Your task to perform on an android device: Search for Italian restaurants on Maps Image 0: 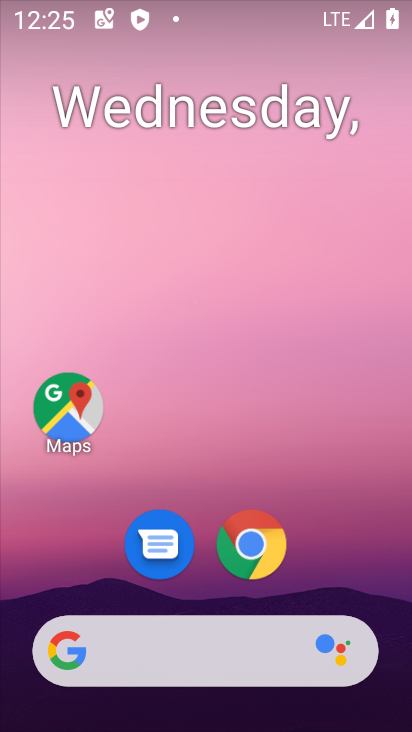
Step 0: drag from (396, 639) to (273, 50)
Your task to perform on an android device: Search for Italian restaurants on Maps Image 1: 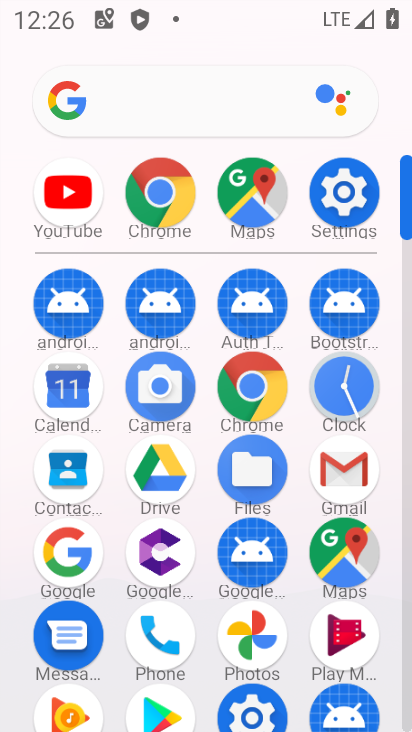
Step 1: click (343, 554)
Your task to perform on an android device: Search for Italian restaurants on Maps Image 2: 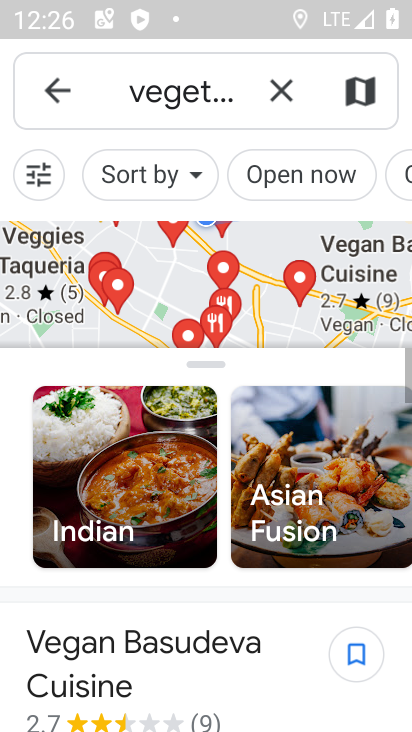
Step 2: click (278, 80)
Your task to perform on an android device: Search for Italian restaurants on Maps Image 3: 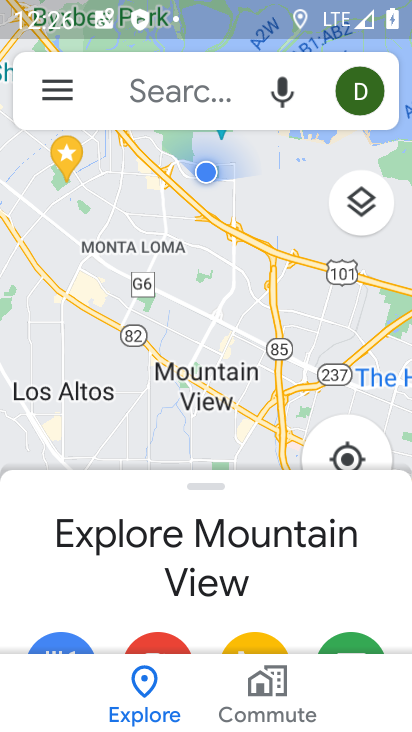
Step 3: click (170, 103)
Your task to perform on an android device: Search for Italian restaurants on Maps Image 4: 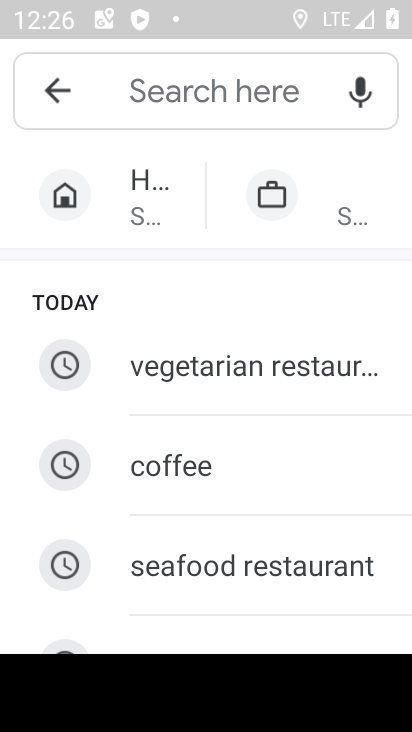
Step 4: drag from (193, 619) to (191, 220)
Your task to perform on an android device: Search for Italian restaurants on Maps Image 5: 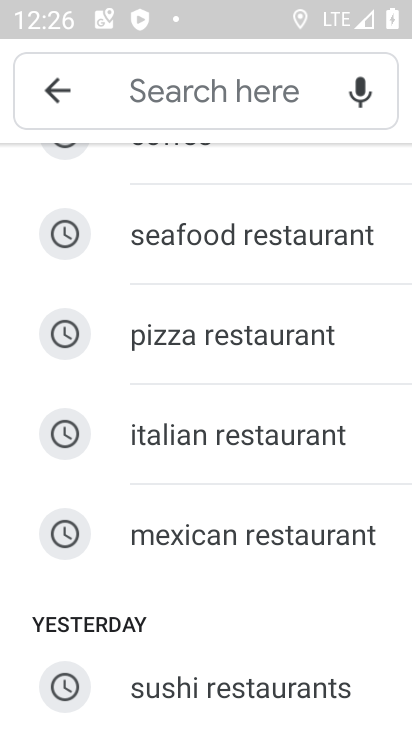
Step 5: click (233, 419)
Your task to perform on an android device: Search for Italian restaurants on Maps Image 6: 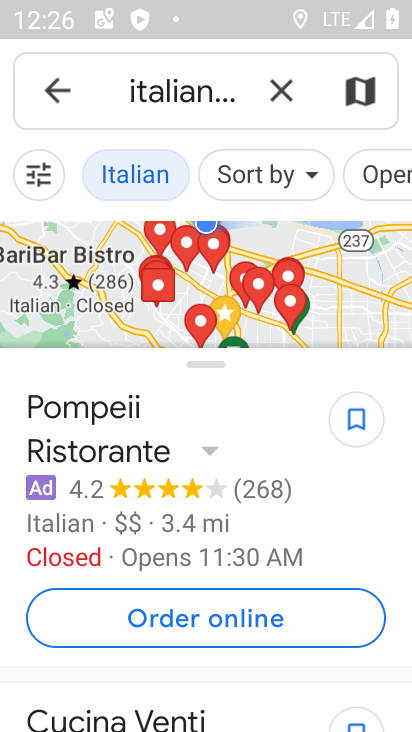
Step 6: task complete